Your task to perform on an android device: Open the map Image 0: 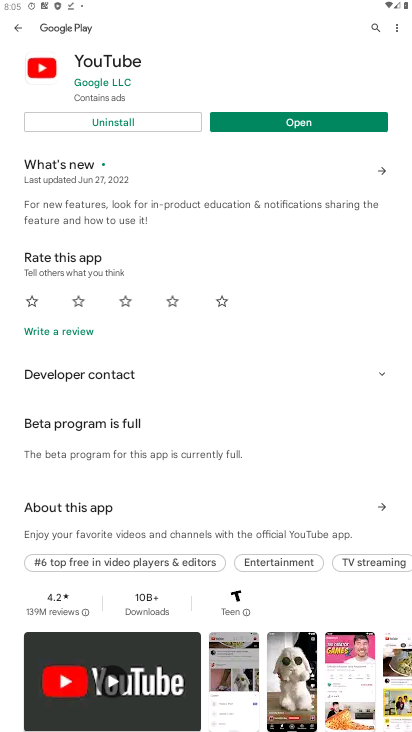
Step 0: press home button
Your task to perform on an android device: Open the map Image 1: 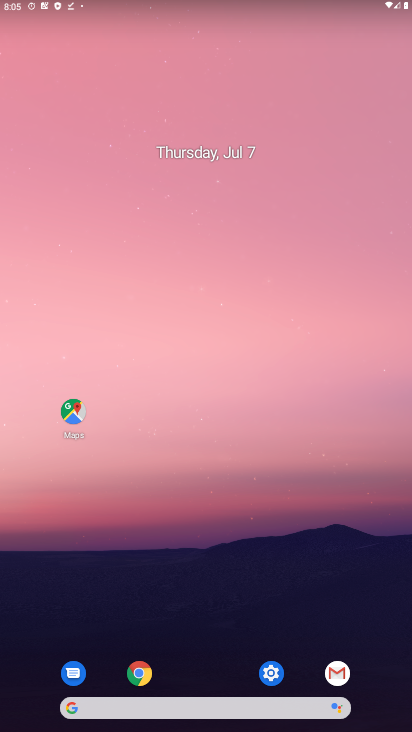
Step 1: click (67, 412)
Your task to perform on an android device: Open the map Image 2: 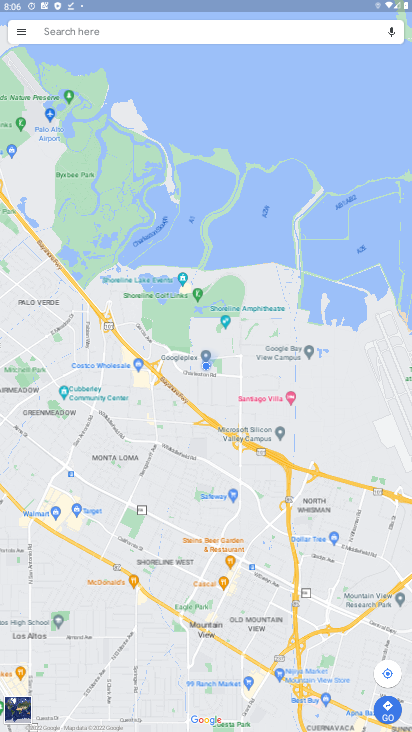
Step 2: task complete